Your task to perform on an android device: Search for "duracell triple a" on walmart.com, select the first entry, and add it to the cart. Image 0: 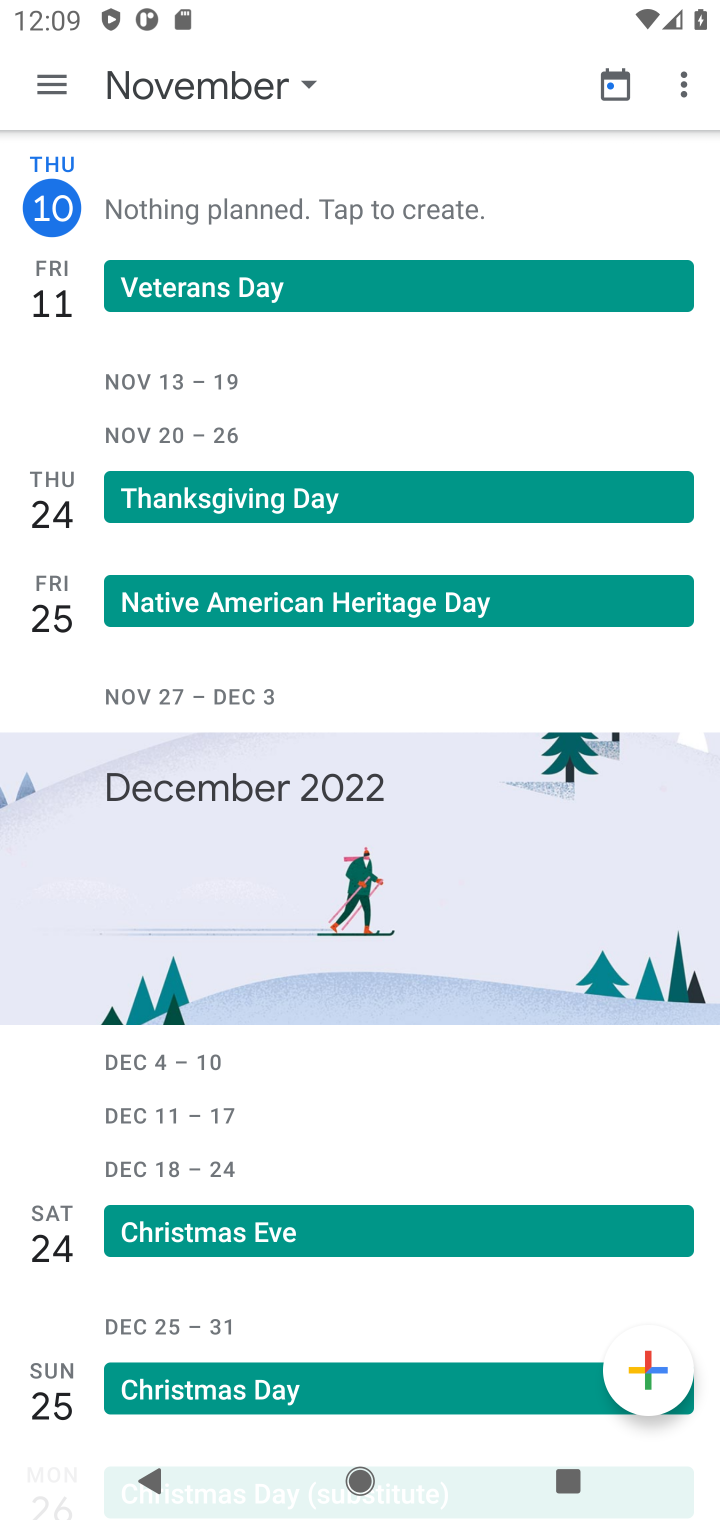
Step 0: press home button
Your task to perform on an android device: Search for "duracell triple a" on walmart.com, select the first entry, and add it to the cart. Image 1: 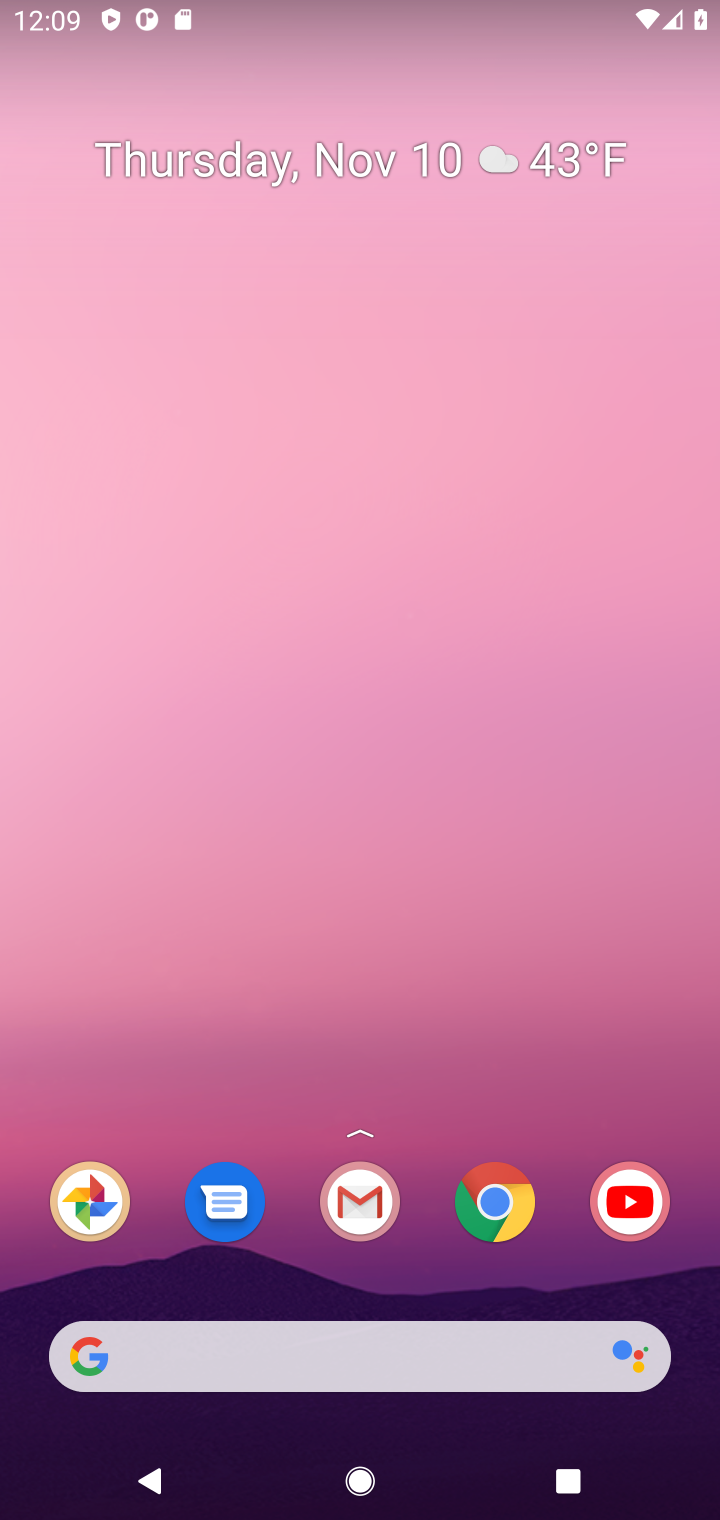
Step 1: click (496, 1190)
Your task to perform on an android device: Search for "duracell triple a" on walmart.com, select the first entry, and add it to the cart. Image 2: 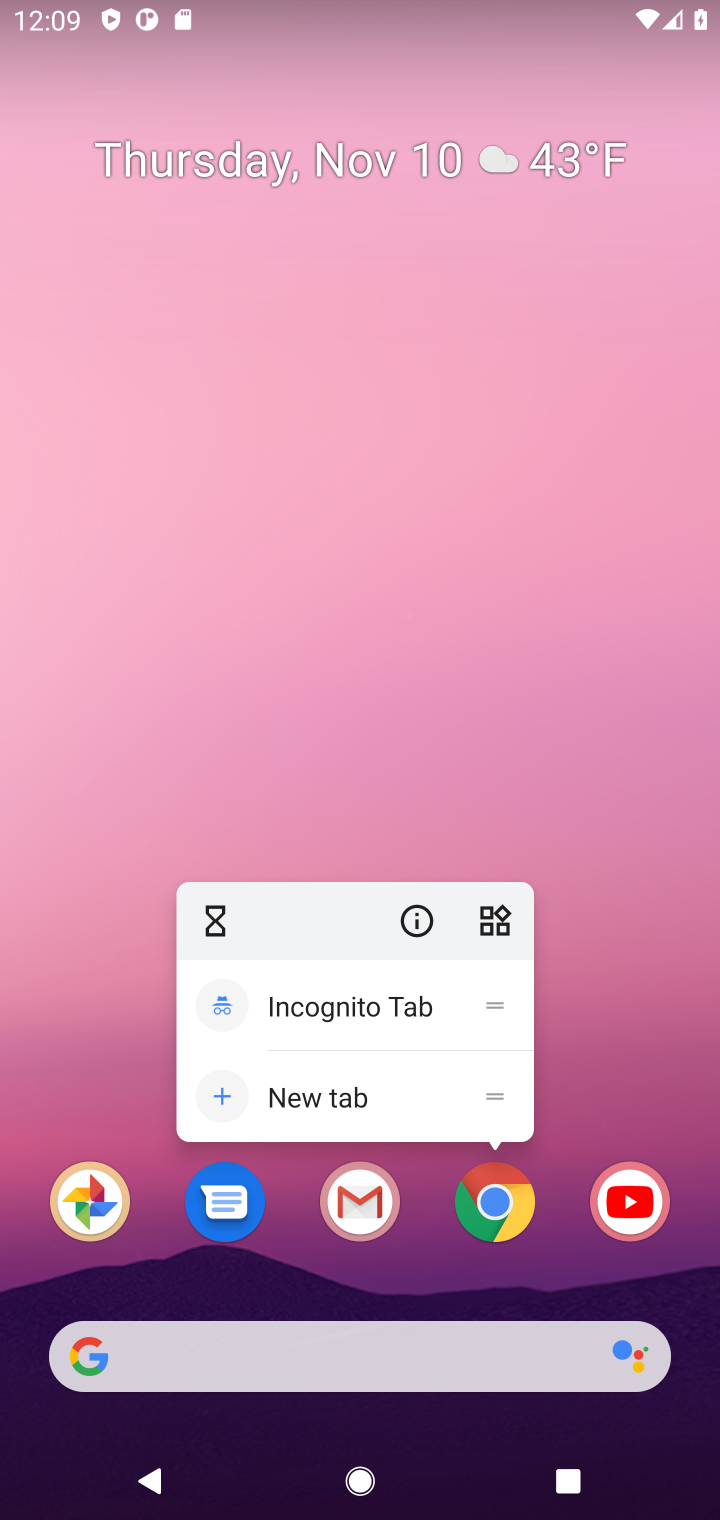
Step 2: click (496, 1190)
Your task to perform on an android device: Search for "duracell triple a" on walmart.com, select the first entry, and add it to the cart. Image 3: 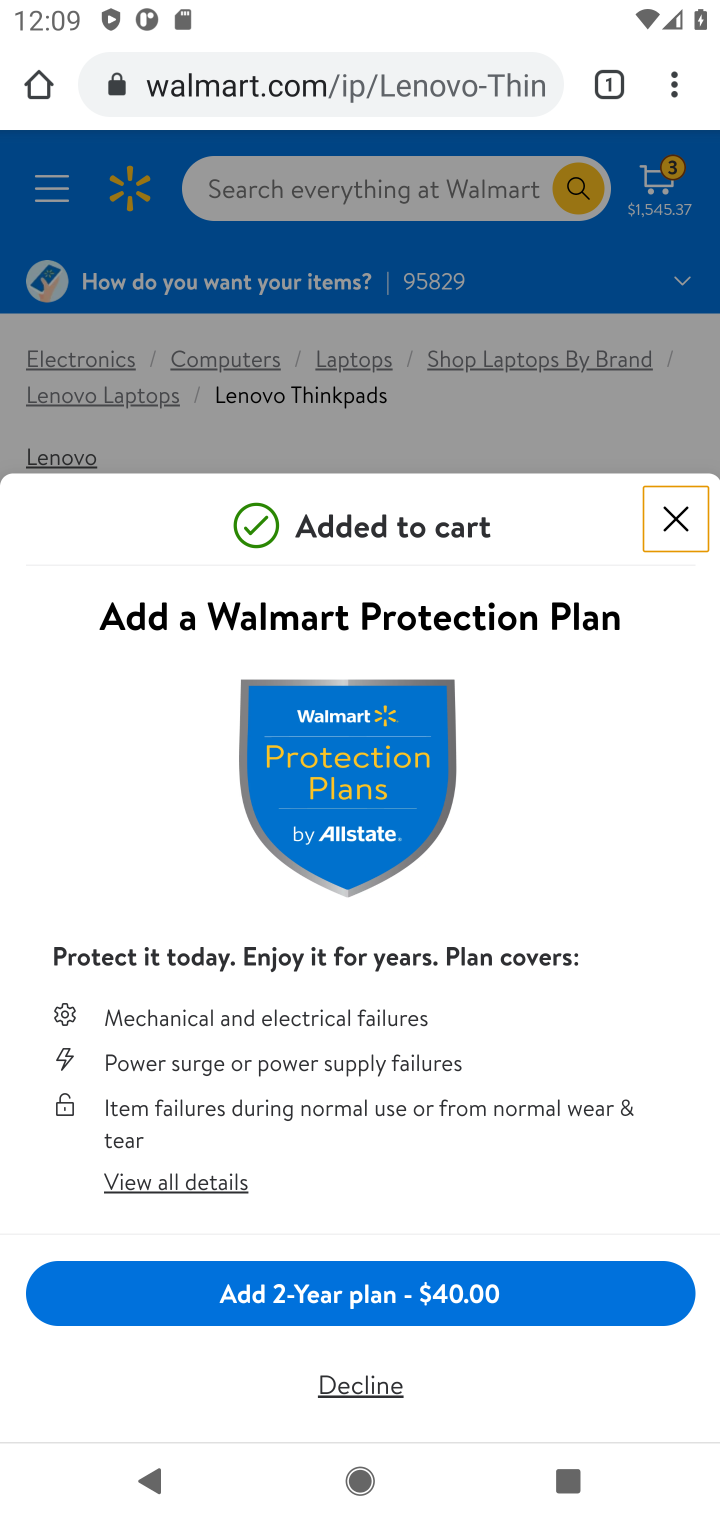
Step 3: click (666, 515)
Your task to perform on an android device: Search for "duracell triple a" on walmart.com, select the first entry, and add it to the cart. Image 4: 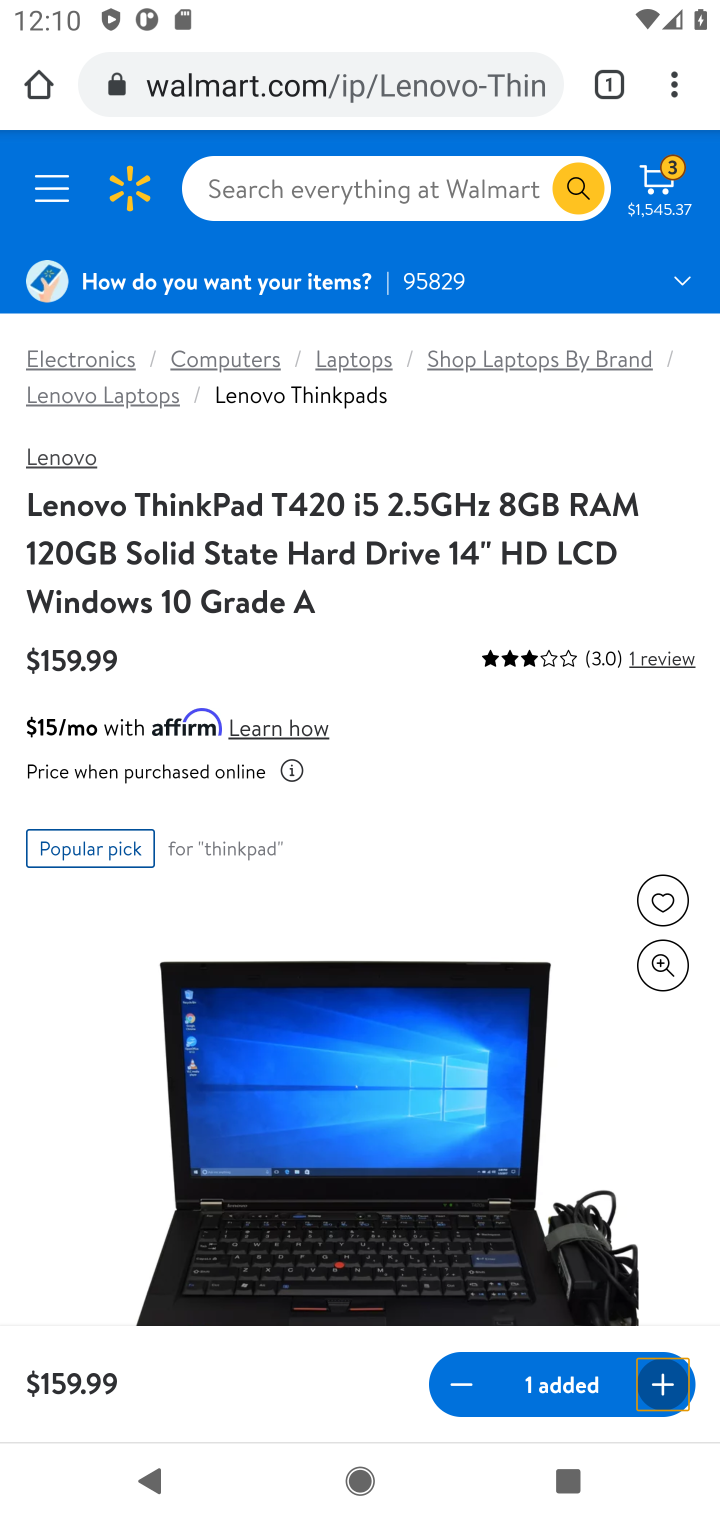
Step 4: click (431, 183)
Your task to perform on an android device: Search for "duracell triple a" on walmart.com, select the first entry, and add it to the cart. Image 5: 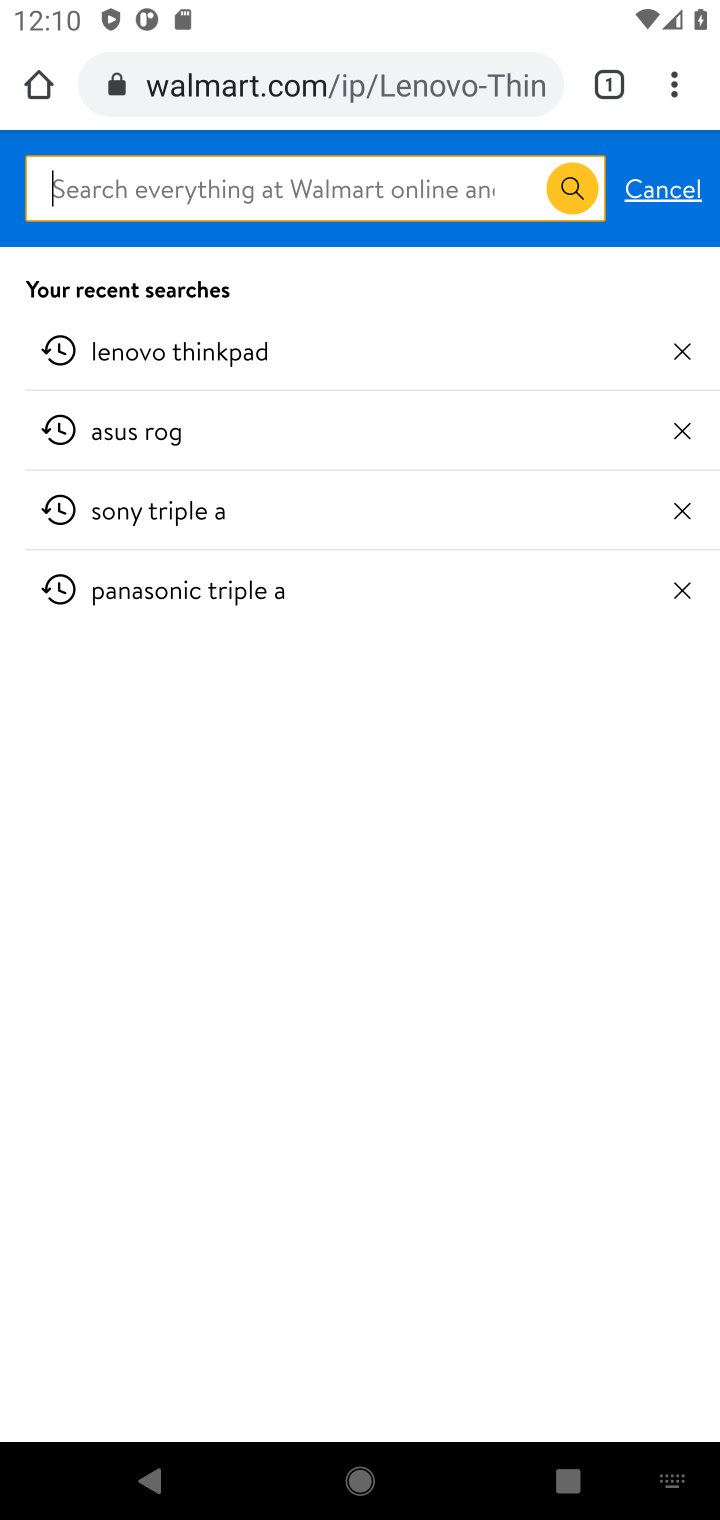
Step 5: type "duracell triple a"
Your task to perform on an android device: Search for "duracell triple a" on walmart.com, select the first entry, and add it to the cart. Image 6: 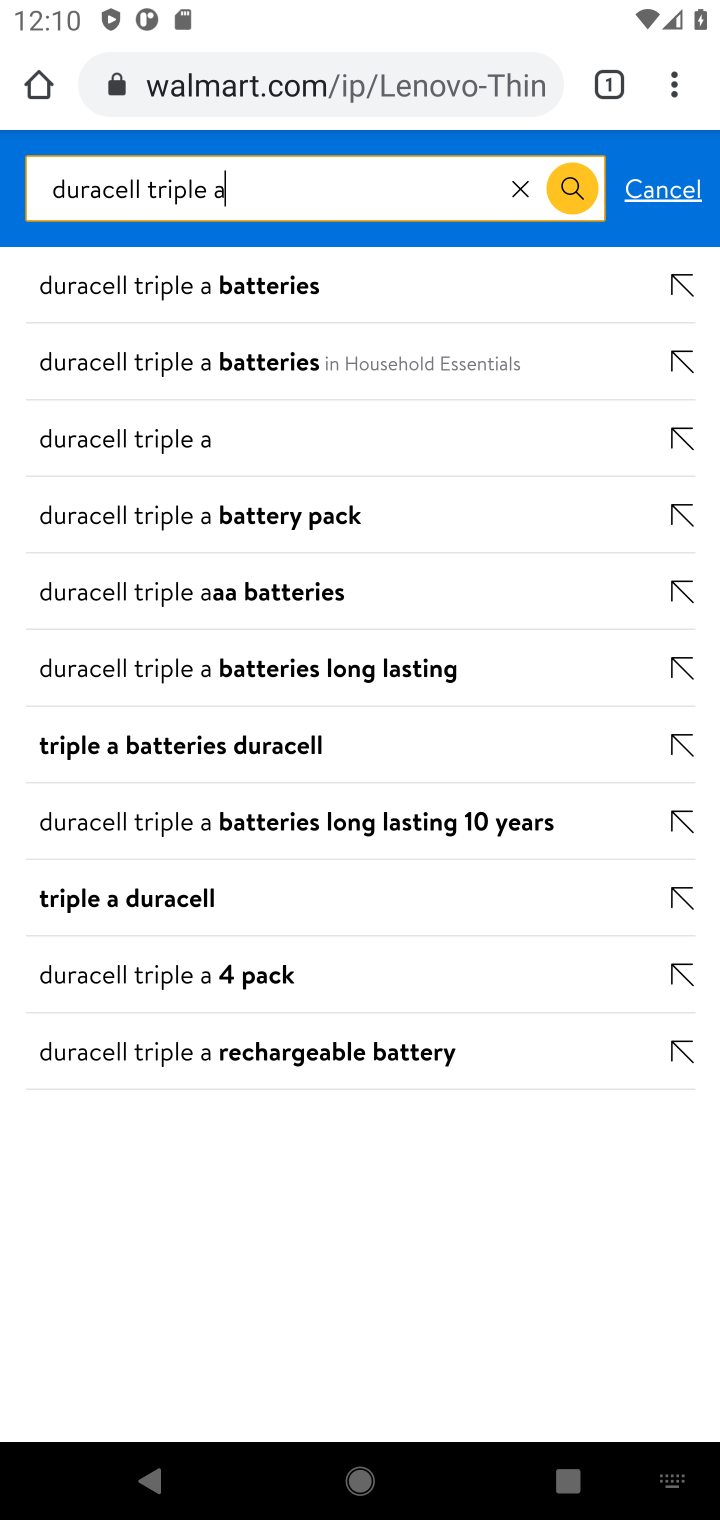
Step 6: click (191, 438)
Your task to perform on an android device: Search for "duracell triple a" on walmart.com, select the first entry, and add it to the cart. Image 7: 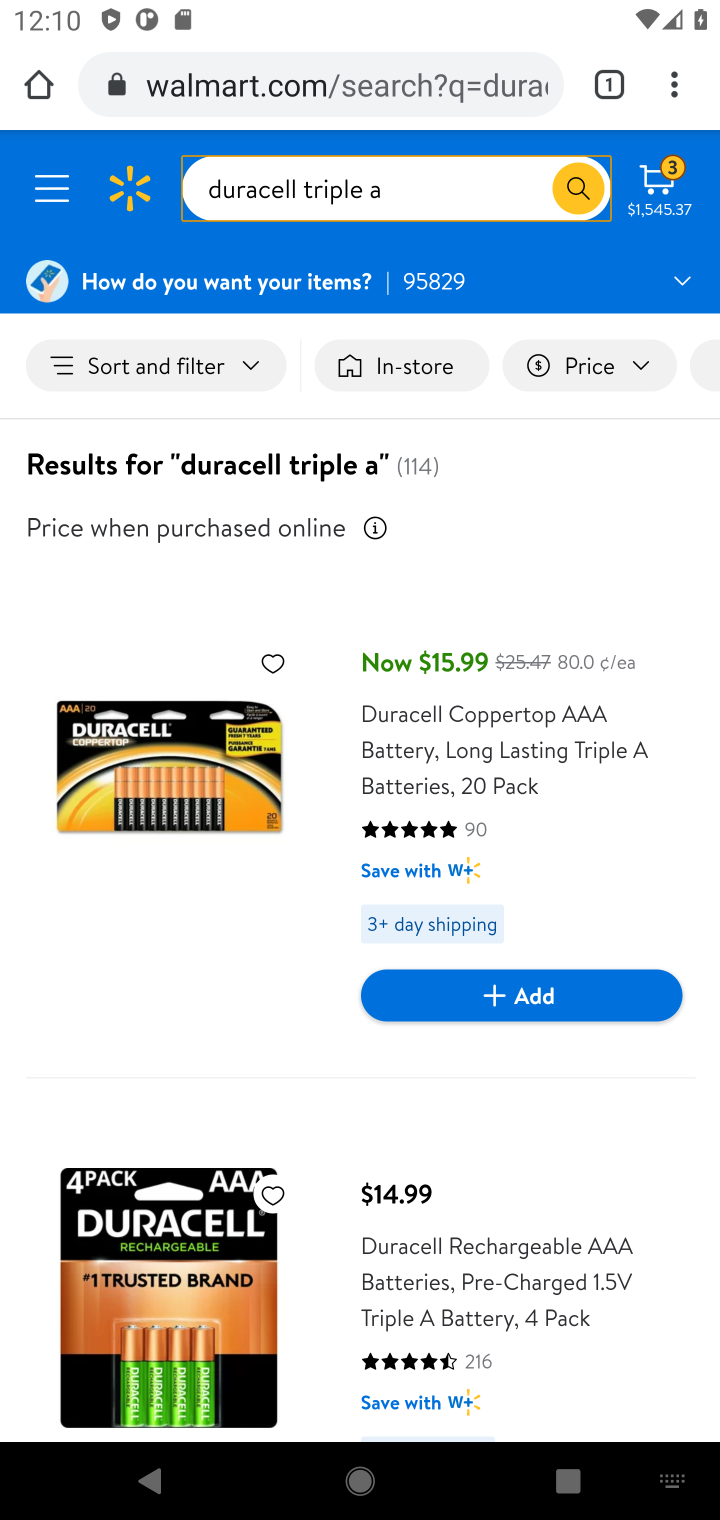
Step 7: click (196, 777)
Your task to perform on an android device: Search for "duracell triple a" on walmart.com, select the first entry, and add it to the cart. Image 8: 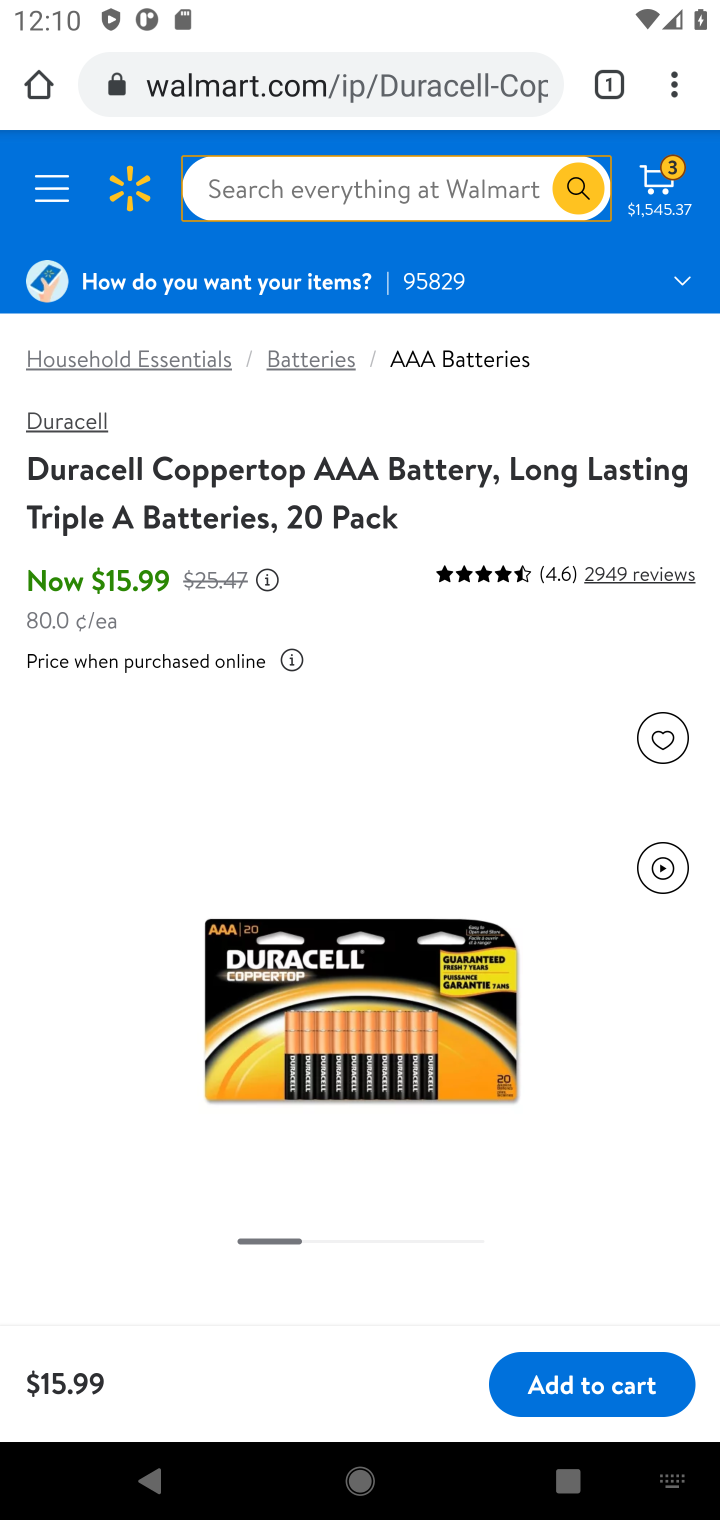
Step 8: click (584, 1374)
Your task to perform on an android device: Search for "duracell triple a" on walmart.com, select the first entry, and add it to the cart. Image 9: 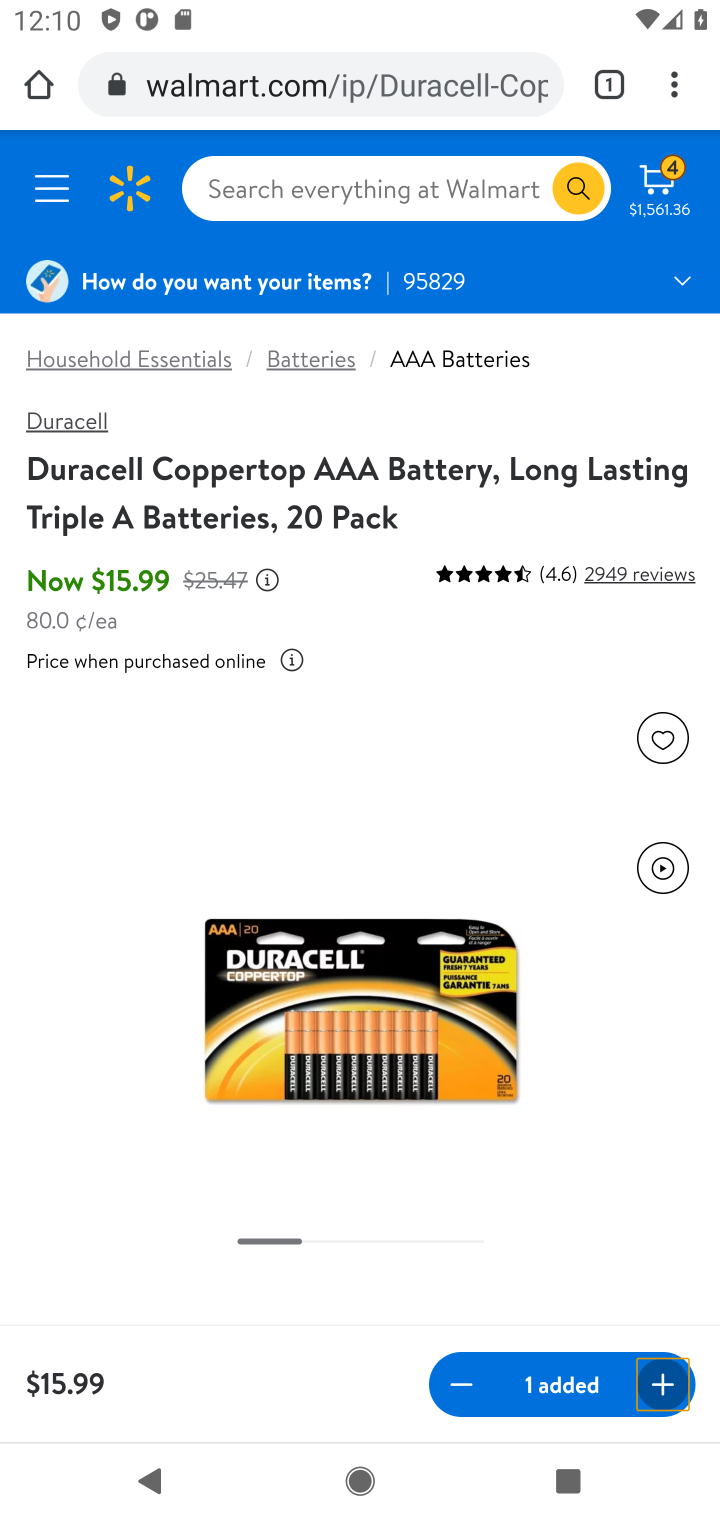
Step 9: task complete